Your task to perform on an android device: turn on location history Image 0: 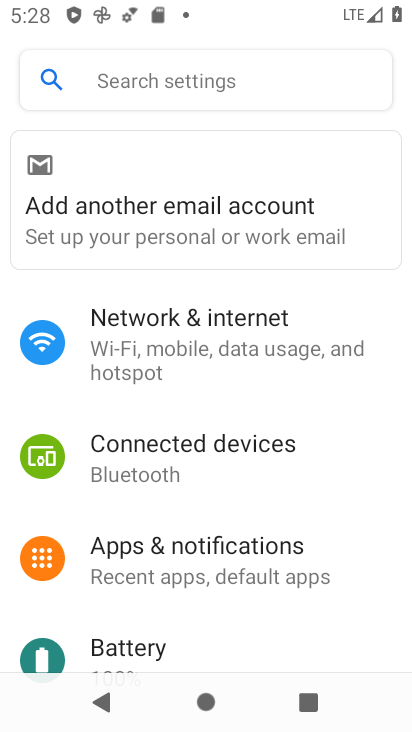
Step 0: drag from (209, 508) to (203, 141)
Your task to perform on an android device: turn on location history Image 1: 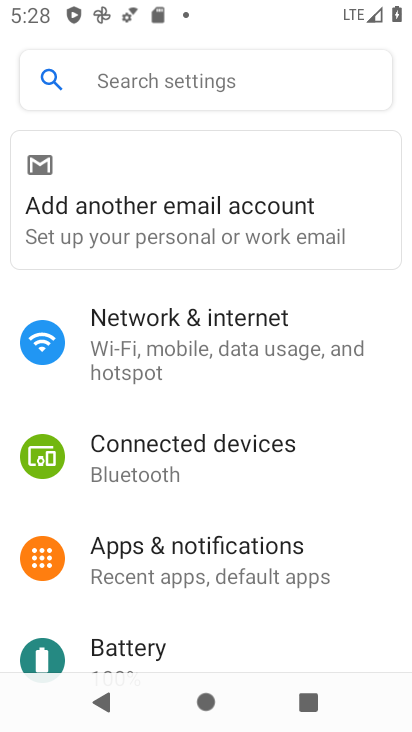
Step 1: drag from (225, 582) to (208, 145)
Your task to perform on an android device: turn on location history Image 2: 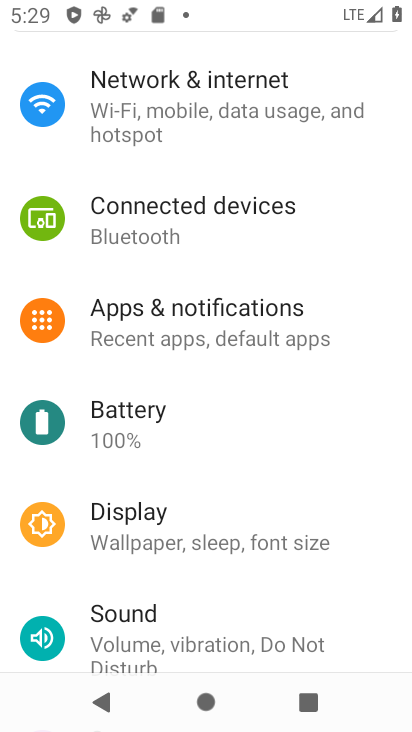
Step 2: drag from (161, 581) to (187, 126)
Your task to perform on an android device: turn on location history Image 3: 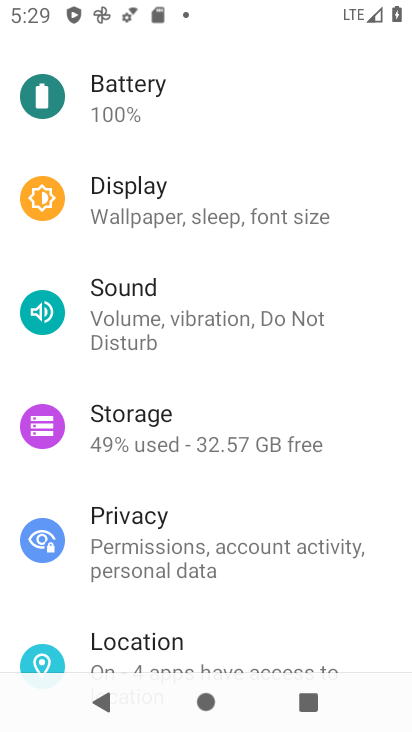
Step 3: click (156, 655)
Your task to perform on an android device: turn on location history Image 4: 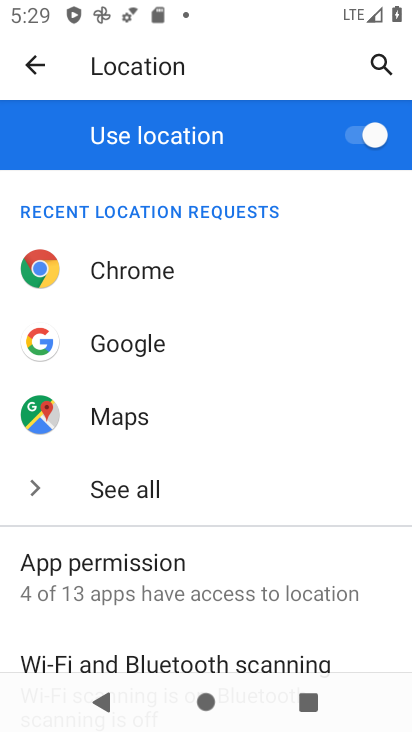
Step 4: drag from (224, 634) to (219, 203)
Your task to perform on an android device: turn on location history Image 5: 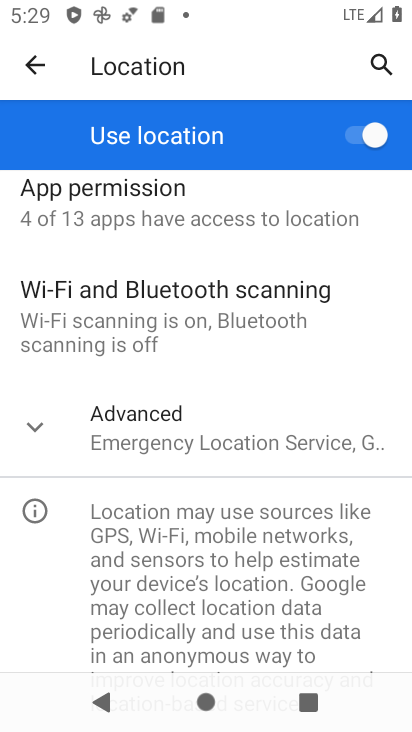
Step 5: click (189, 438)
Your task to perform on an android device: turn on location history Image 6: 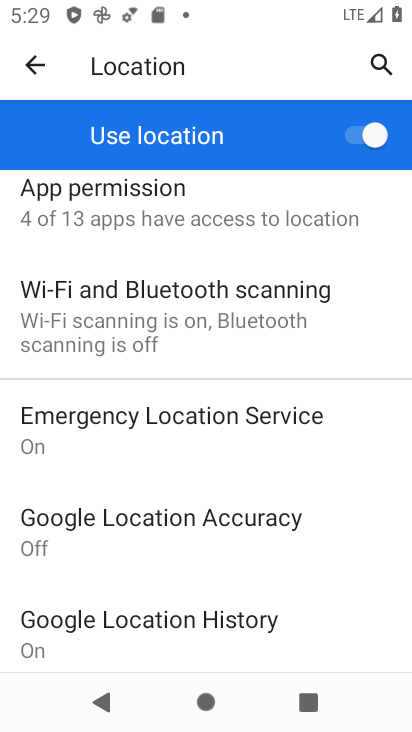
Step 6: click (208, 613)
Your task to perform on an android device: turn on location history Image 7: 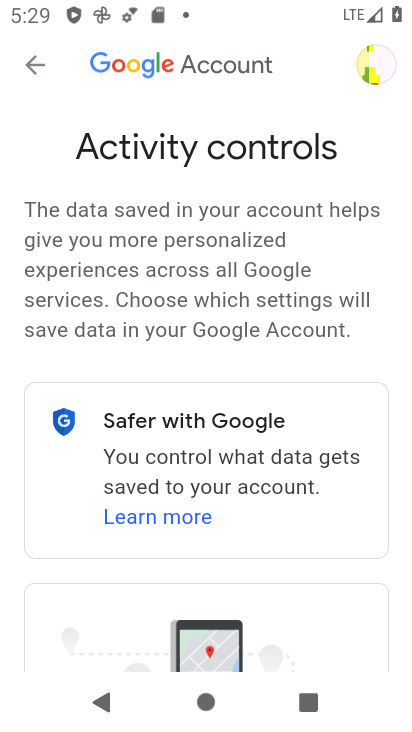
Step 7: task complete